Your task to perform on an android device: toggle airplane mode Image 0: 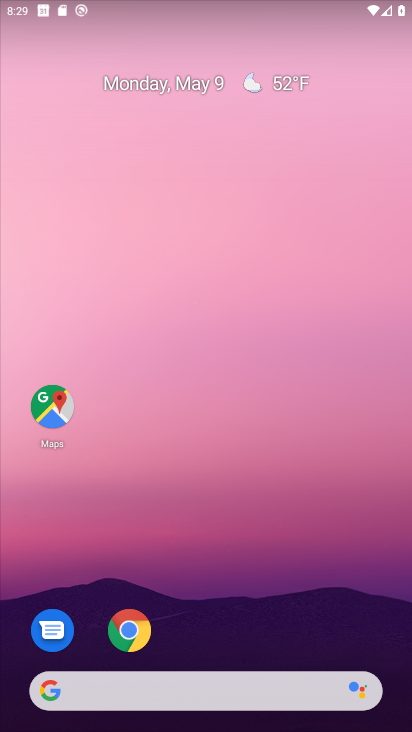
Step 0: drag from (230, 651) to (328, 40)
Your task to perform on an android device: toggle airplane mode Image 1: 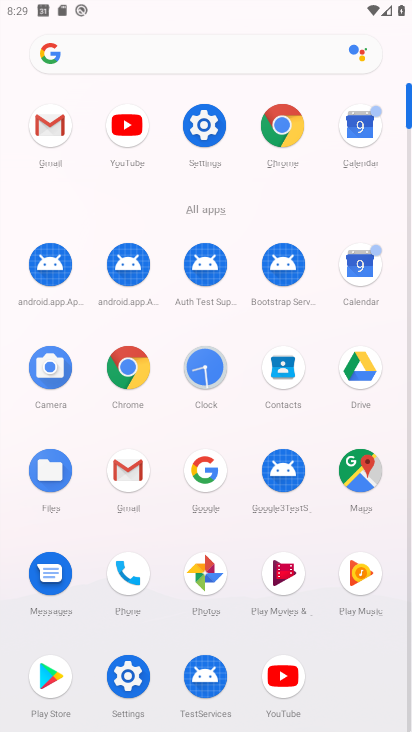
Step 1: click (196, 149)
Your task to perform on an android device: toggle airplane mode Image 2: 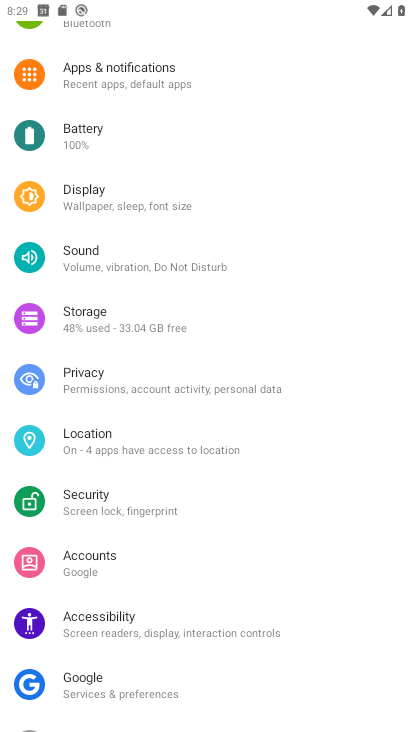
Step 2: drag from (199, 142) to (201, 612)
Your task to perform on an android device: toggle airplane mode Image 3: 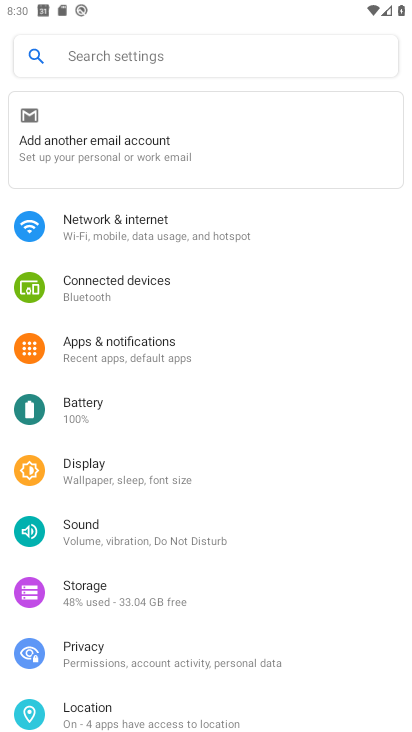
Step 3: click (161, 241)
Your task to perform on an android device: toggle airplane mode Image 4: 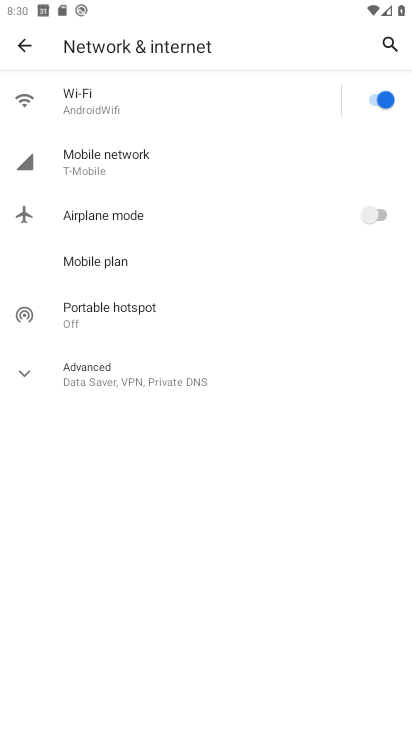
Step 4: click (386, 216)
Your task to perform on an android device: toggle airplane mode Image 5: 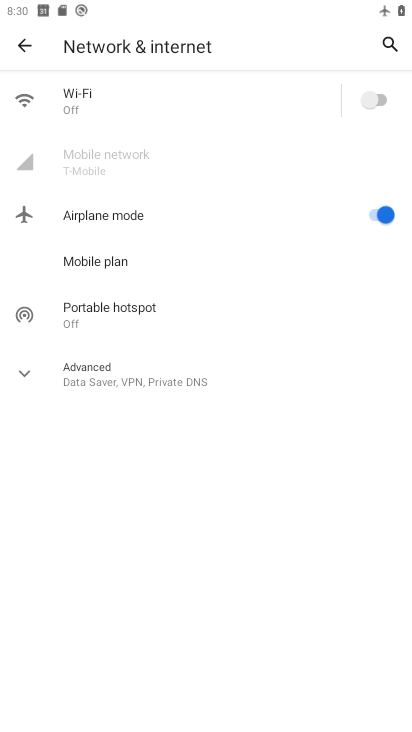
Step 5: task complete